Your task to perform on an android device: What is the recent news? Image 0: 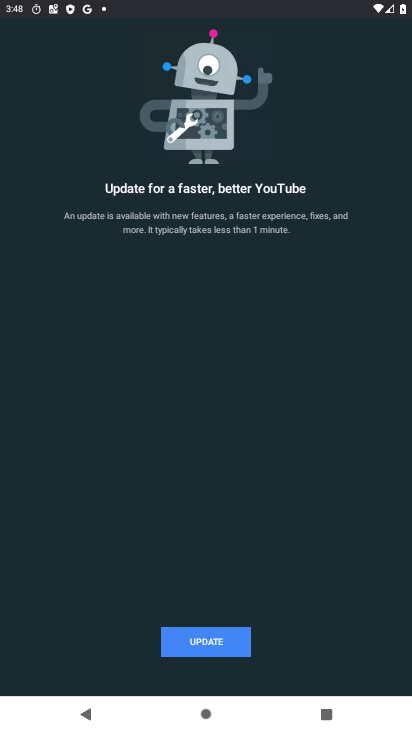
Step 0: press home button
Your task to perform on an android device: What is the recent news? Image 1: 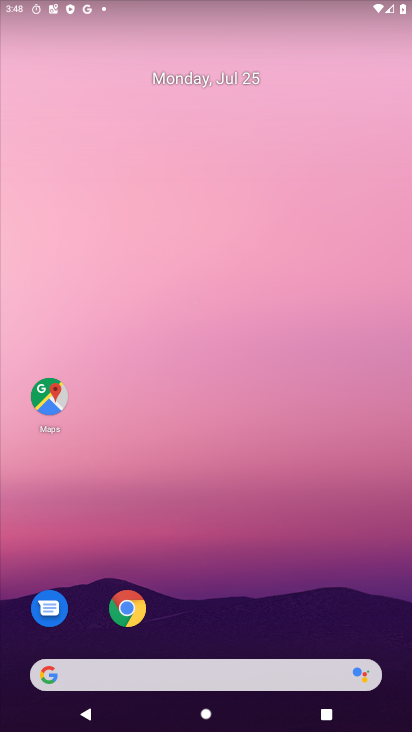
Step 1: task complete